Your task to perform on an android device: refresh tabs in the chrome app Image 0: 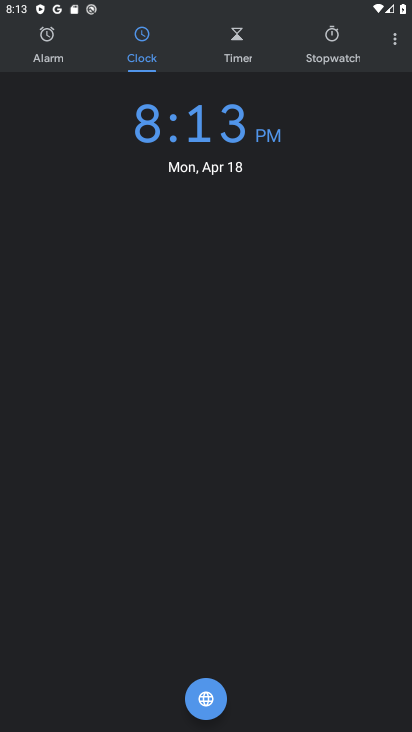
Step 0: press back button
Your task to perform on an android device: refresh tabs in the chrome app Image 1: 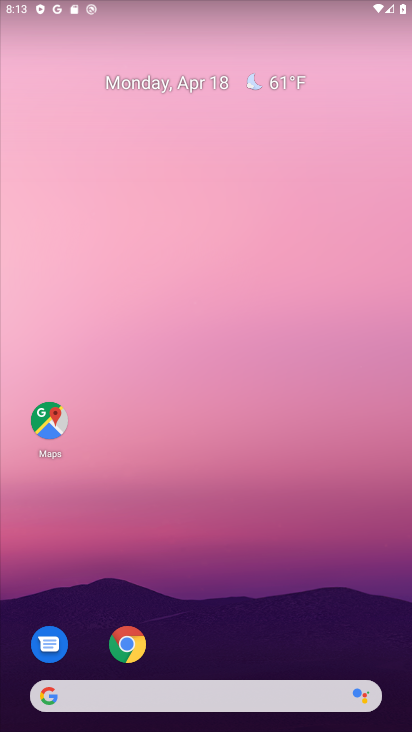
Step 1: click (131, 650)
Your task to perform on an android device: refresh tabs in the chrome app Image 2: 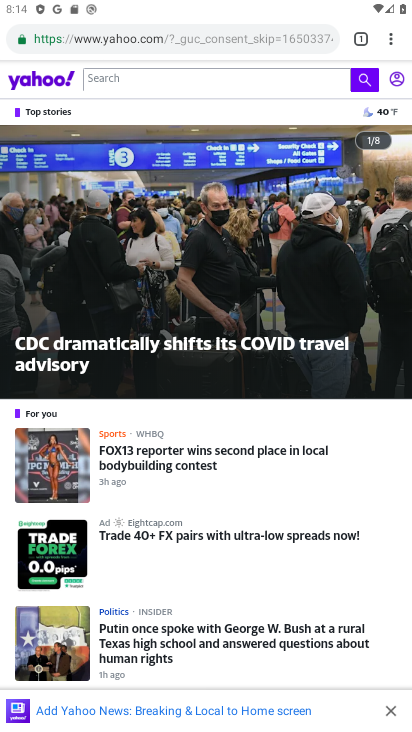
Step 2: click (392, 38)
Your task to perform on an android device: refresh tabs in the chrome app Image 3: 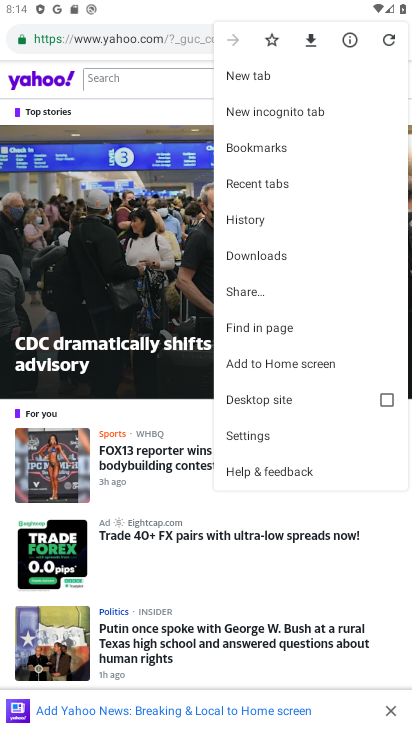
Step 3: click (389, 35)
Your task to perform on an android device: refresh tabs in the chrome app Image 4: 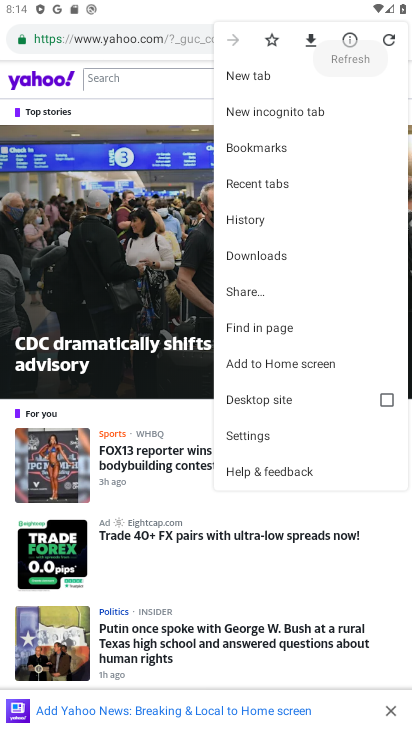
Step 4: click (388, 37)
Your task to perform on an android device: refresh tabs in the chrome app Image 5: 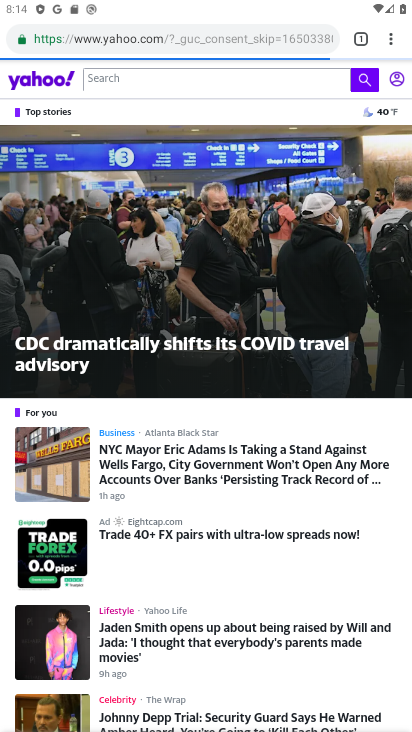
Step 5: task complete